Your task to perform on an android device: turn off notifications settings in the gmail app Image 0: 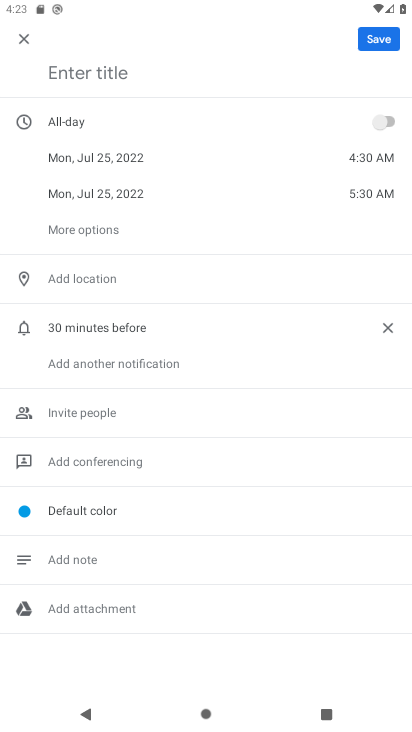
Step 0: press home button
Your task to perform on an android device: turn off notifications settings in the gmail app Image 1: 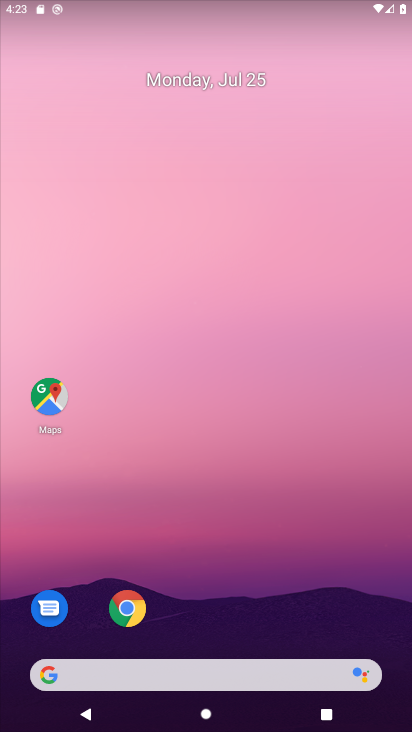
Step 1: drag from (243, 582) to (293, 8)
Your task to perform on an android device: turn off notifications settings in the gmail app Image 2: 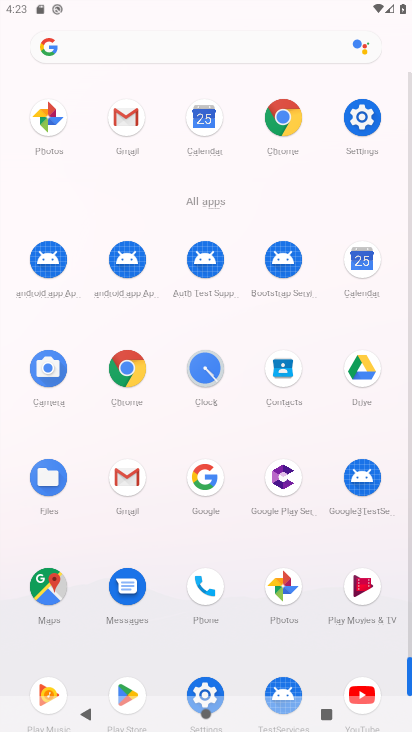
Step 2: click (124, 482)
Your task to perform on an android device: turn off notifications settings in the gmail app Image 3: 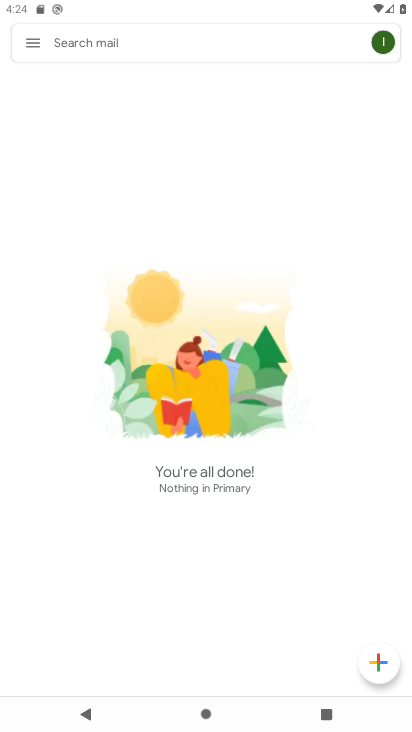
Step 3: click (32, 38)
Your task to perform on an android device: turn off notifications settings in the gmail app Image 4: 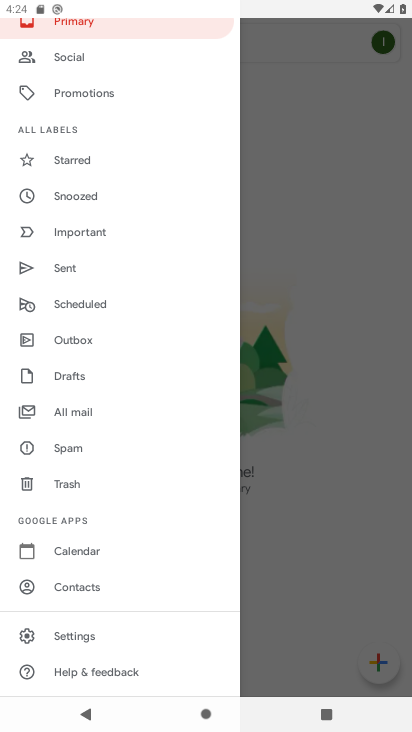
Step 4: click (74, 647)
Your task to perform on an android device: turn off notifications settings in the gmail app Image 5: 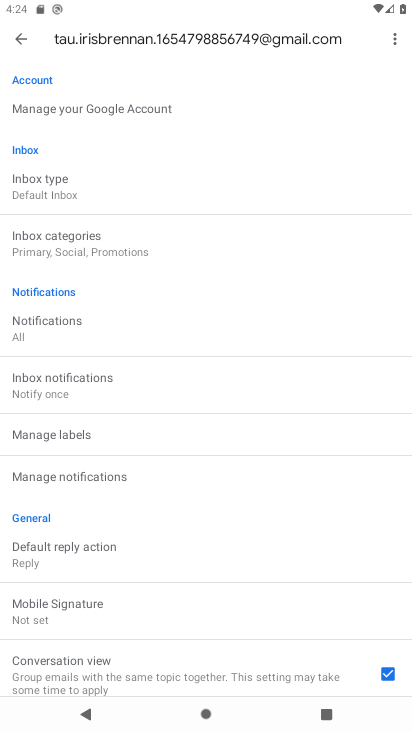
Step 5: click (15, 32)
Your task to perform on an android device: turn off notifications settings in the gmail app Image 6: 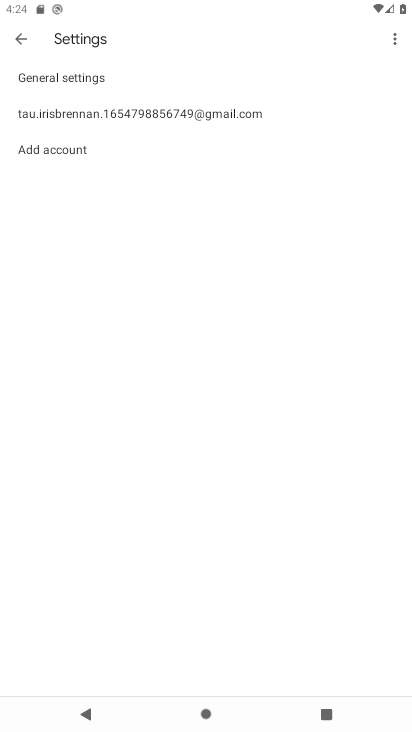
Step 6: click (84, 74)
Your task to perform on an android device: turn off notifications settings in the gmail app Image 7: 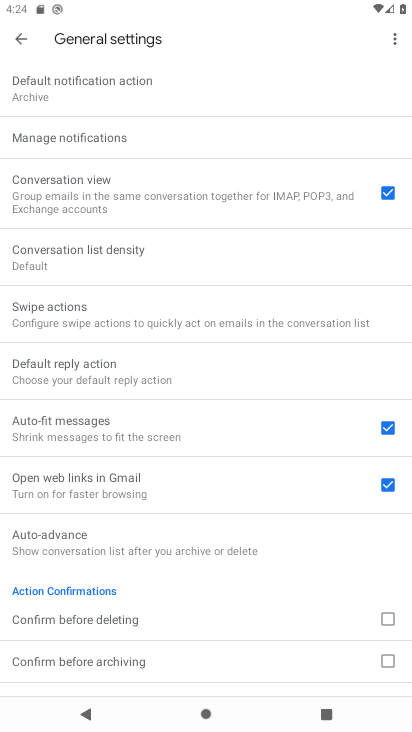
Step 7: click (104, 139)
Your task to perform on an android device: turn off notifications settings in the gmail app Image 8: 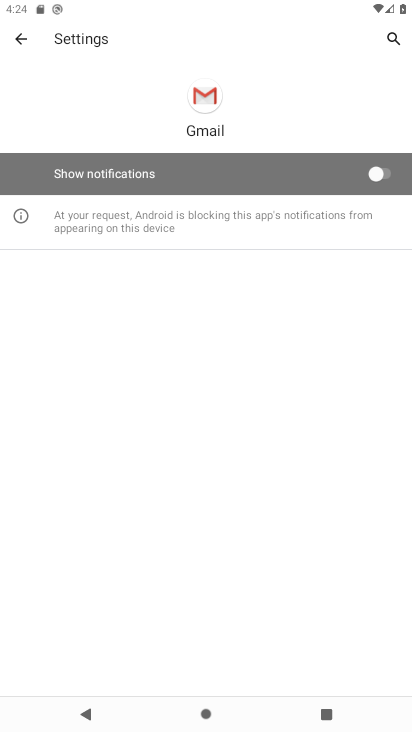
Step 8: task complete